Your task to perform on an android device: open chrome and create a bookmark for the current page Image 0: 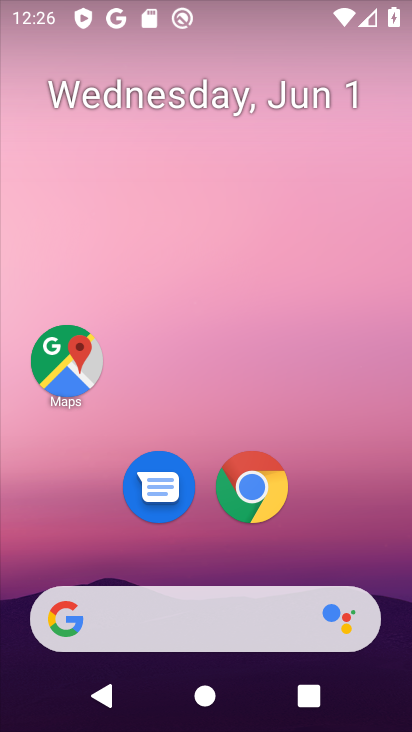
Step 0: click (244, 492)
Your task to perform on an android device: open chrome and create a bookmark for the current page Image 1: 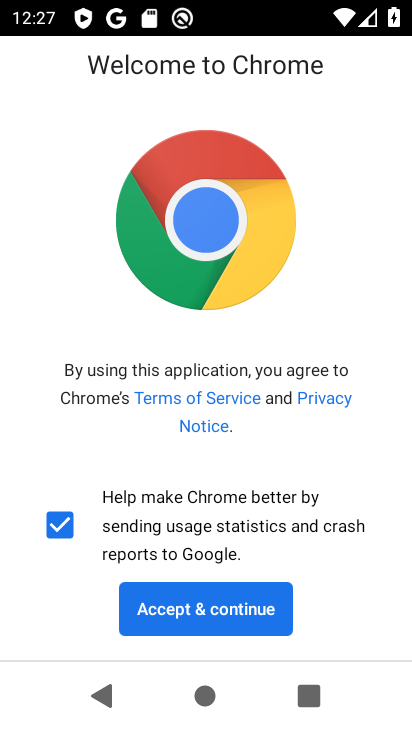
Step 1: click (211, 605)
Your task to perform on an android device: open chrome and create a bookmark for the current page Image 2: 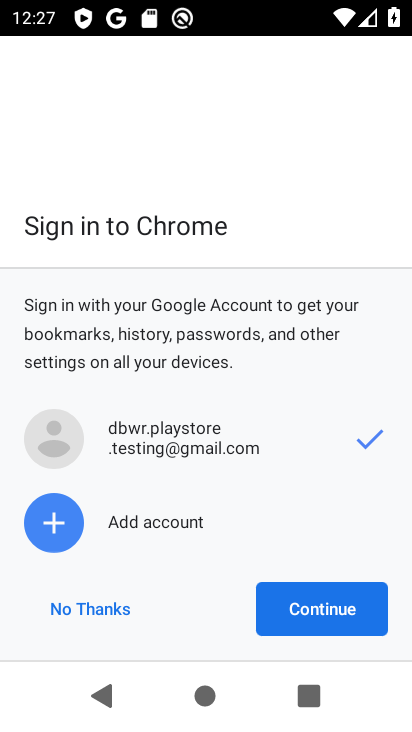
Step 2: click (307, 598)
Your task to perform on an android device: open chrome and create a bookmark for the current page Image 3: 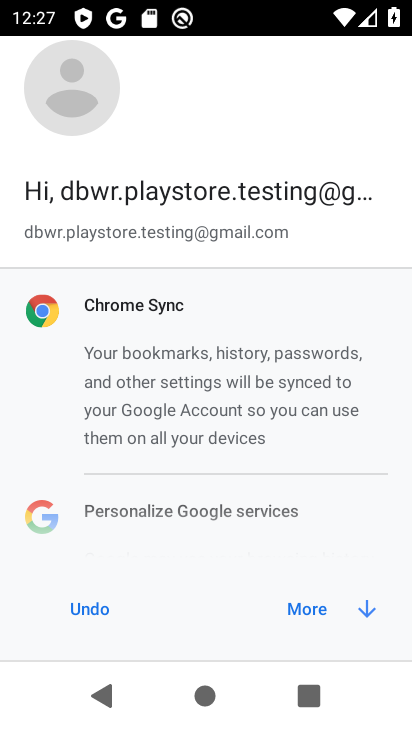
Step 3: click (310, 612)
Your task to perform on an android device: open chrome and create a bookmark for the current page Image 4: 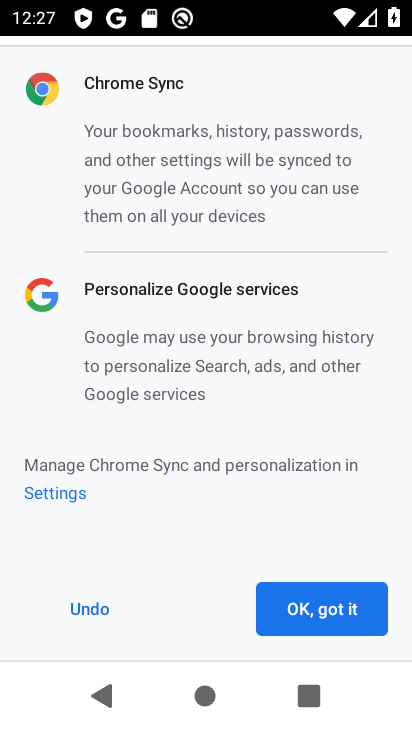
Step 4: click (301, 620)
Your task to perform on an android device: open chrome and create a bookmark for the current page Image 5: 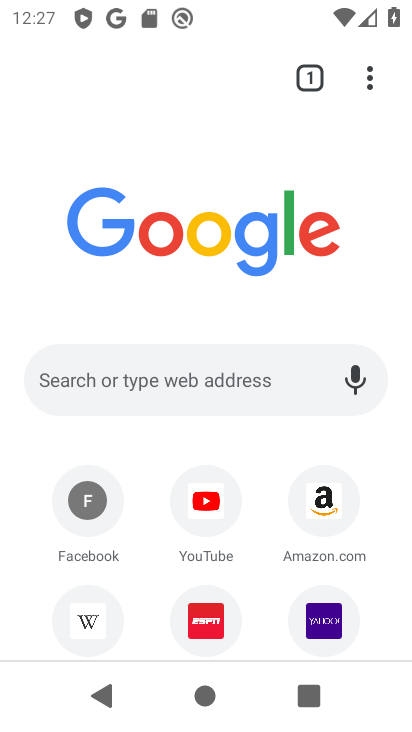
Step 5: click (355, 70)
Your task to perform on an android device: open chrome and create a bookmark for the current page Image 6: 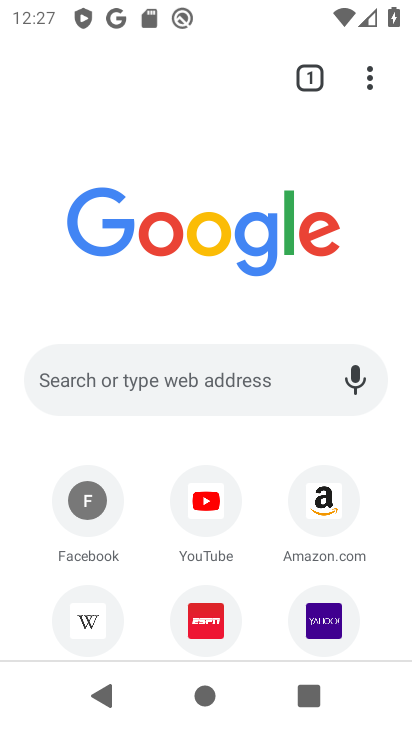
Step 6: click (363, 70)
Your task to perform on an android device: open chrome and create a bookmark for the current page Image 7: 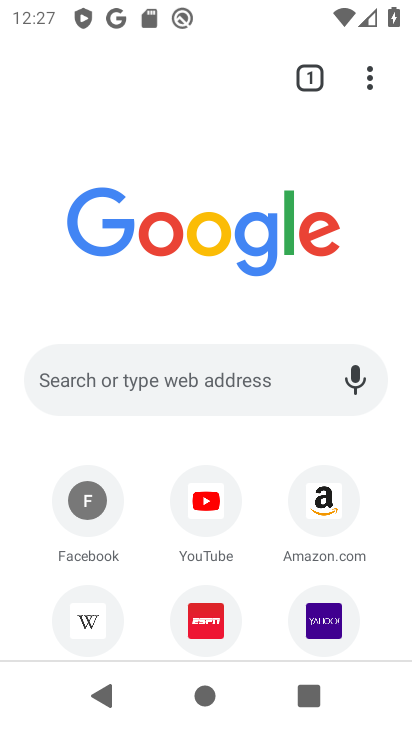
Step 7: click (342, 83)
Your task to perform on an android device: open chrome and create a bookmark for the current page Image 8: 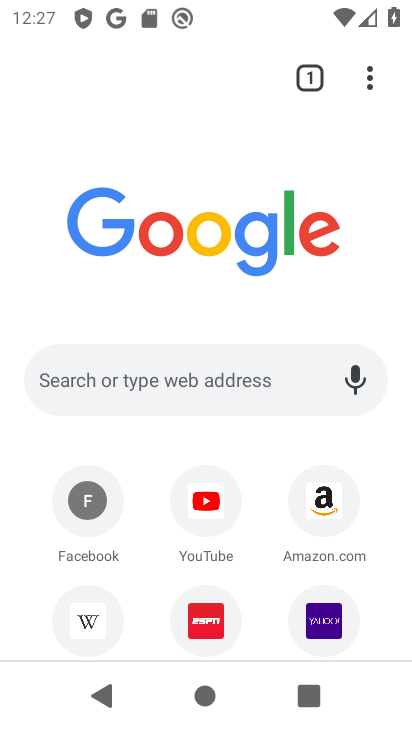
Step 8: click (344, 78)
Your task to perform on an android device: open chrome and create a bookmark for the current page Image 9: 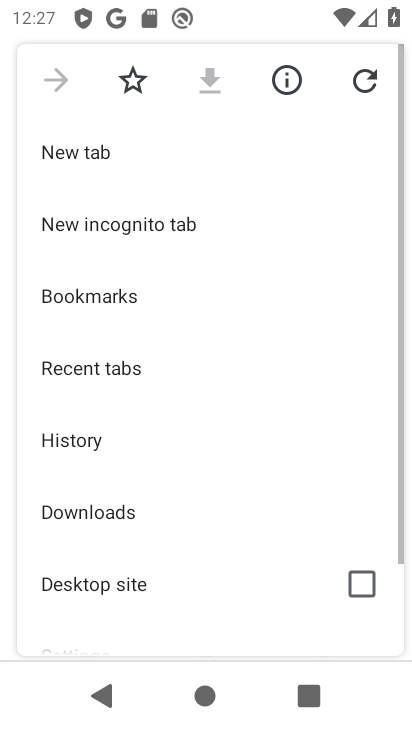
Step 9: click (149, 83)
Your task to perform on an android device: open chrome and create a bookmark for the current page Image 10: 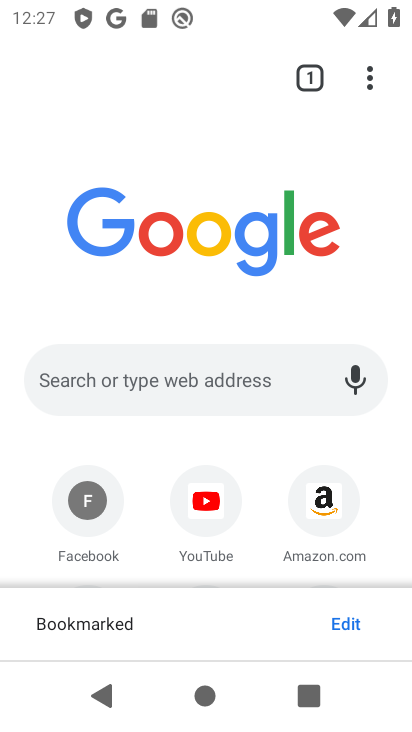
Step 10: task complete